Your task to perform on an android device: Open Youtube and go to "Your channel" Image 0: 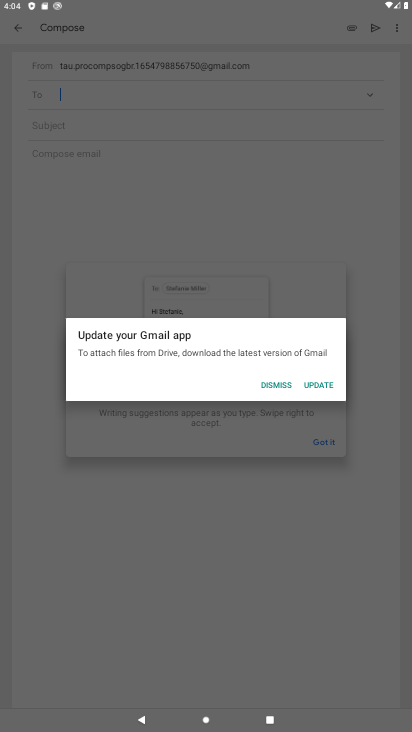
Step 0: press home button
Your task to perform on an android device: Open Youtube and go to "Your channel" Image 1: 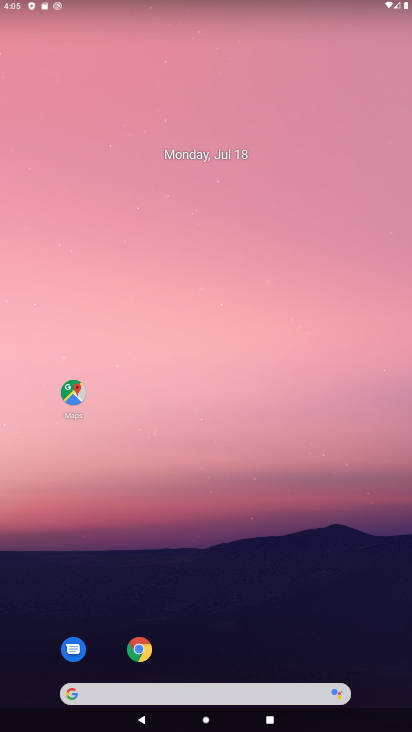
Step 1: click (246, 108)
Your task to perform on an android device: Open Youtube and go to "Your channel" Image 2: 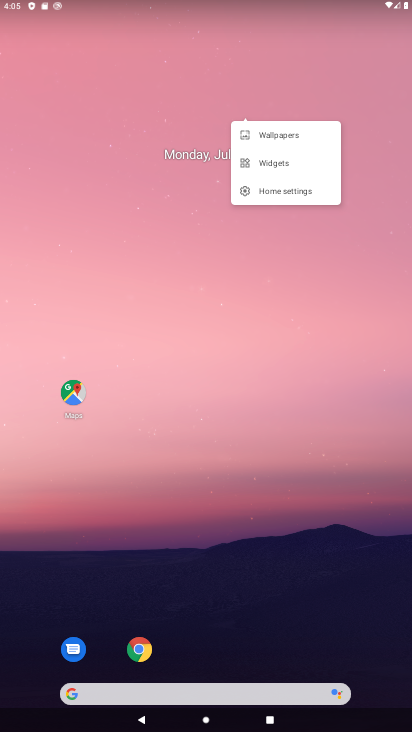
Step 2: drag from (205, 656) to (161, 211)
Your task to perform on an android device: Open Youtube and go to "Your channel" Image 3: 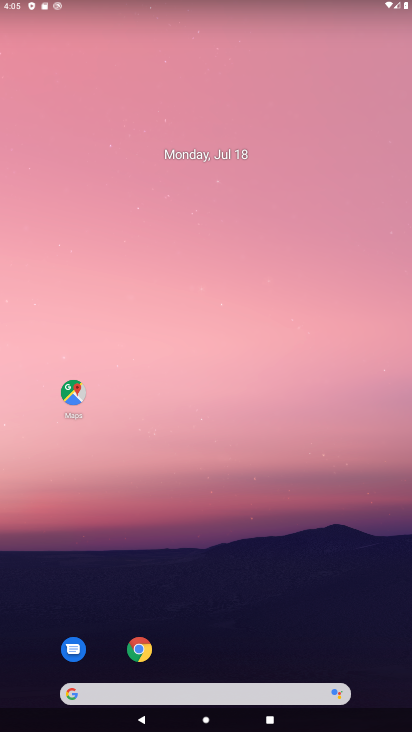
Step 3: drag from (198, 625) to (286, 19)
Your task to perform on an android device: Open Youtube and go to "Your channel" Image 4: 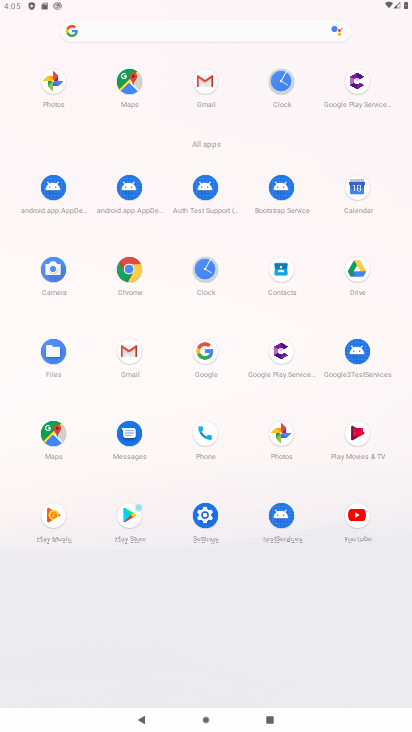
Step 4: click (346, 526)
Your task to perform on an android device: Open Youtube and go to "Your channel" Image 5: 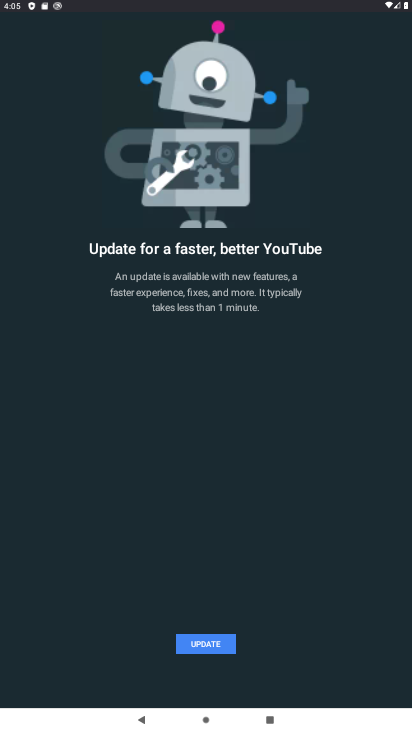
Step 5: click (205, 629)
Your task to perform on an android device: Open Youtube and go to "Your channel" Image 6: 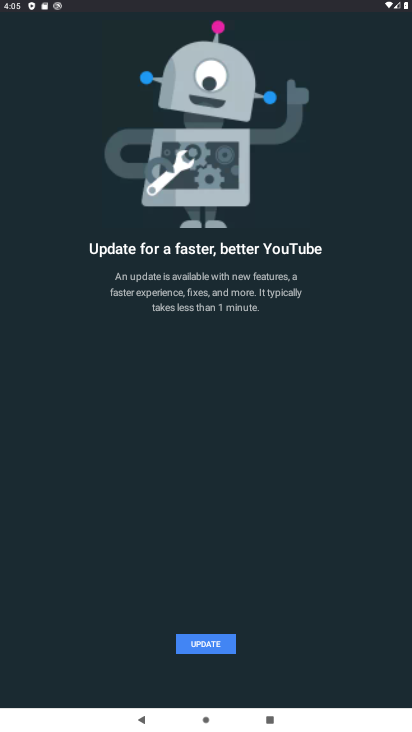
Step 6: click (206, 650)
Your task to perform on an android device: Open Youtube and go to "Your channel" Image 7: 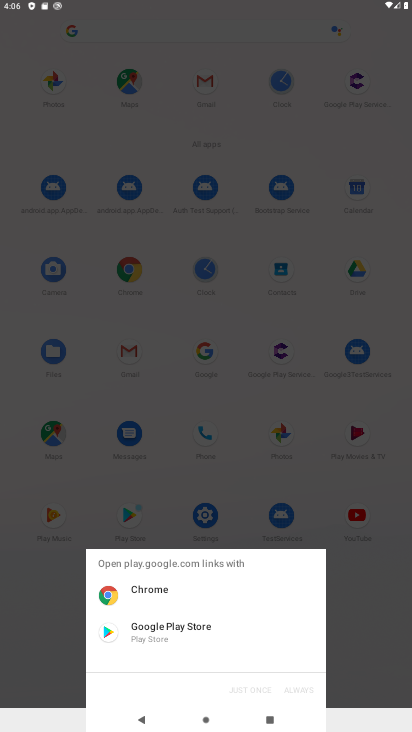
Step 7: click (182, 649)
Your task to perform on an android device: Open Youtube and go to "Your channel" Image 8: 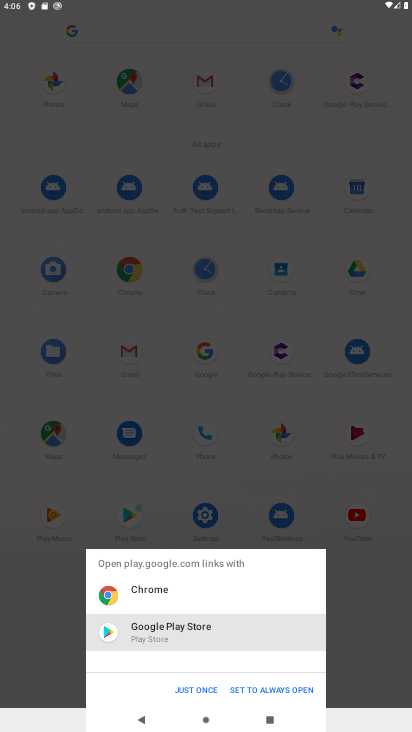
Step 8: click (185, 687)
Your task to perform on an android device: Open Youtube and go to "Your channel" Image 9: 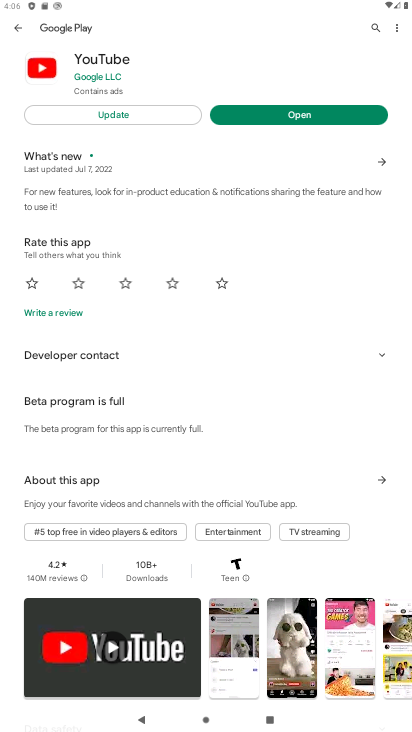
Step 9: click (165, 125)
Your task to perform on an android device: Open Youtube and go to "Your channel" Image 10: 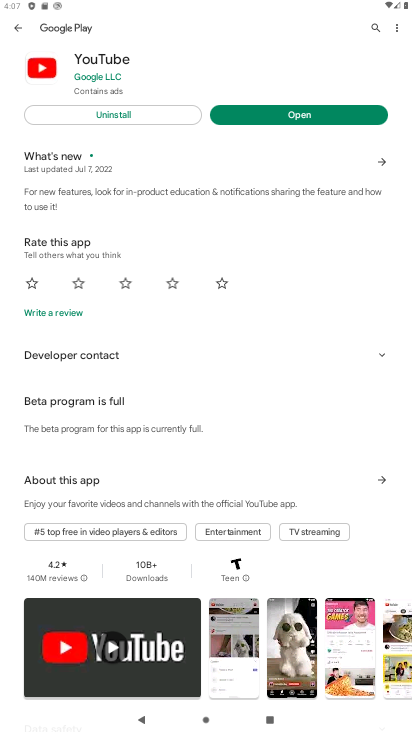
Step 10: click (332, 119)
Your task to perform on an android device: Open Youtube and go to "Your channel" Image 11: 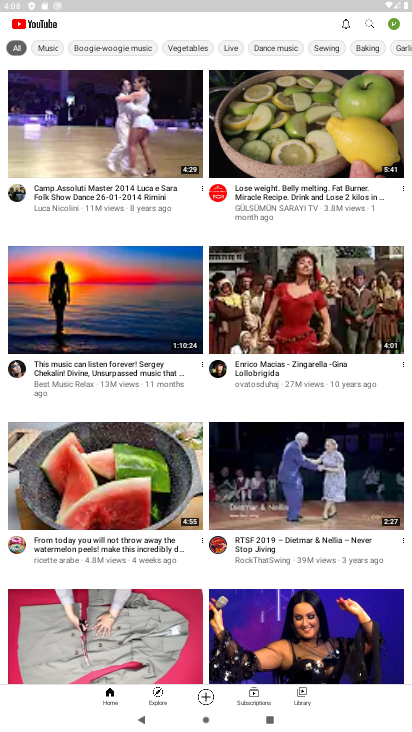
Step 11: click (368, 26)
Your task to perform on an android device: Open Youtube and go to "Your channel" Image 12: 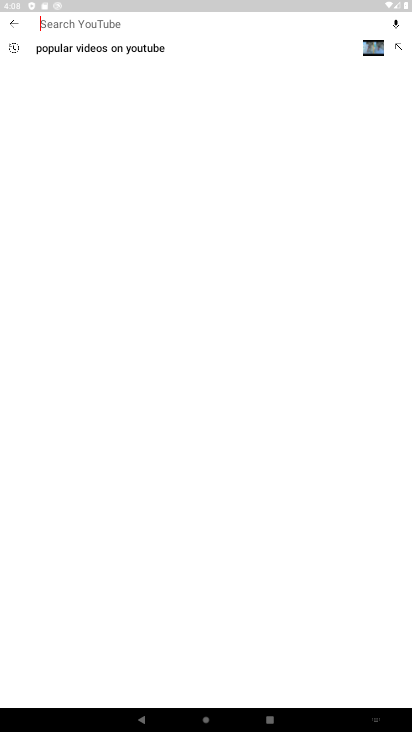
Step 12: type "your channel"
Your task to perform on an android device: Open Youtube and go to "Your channel" Image 13: 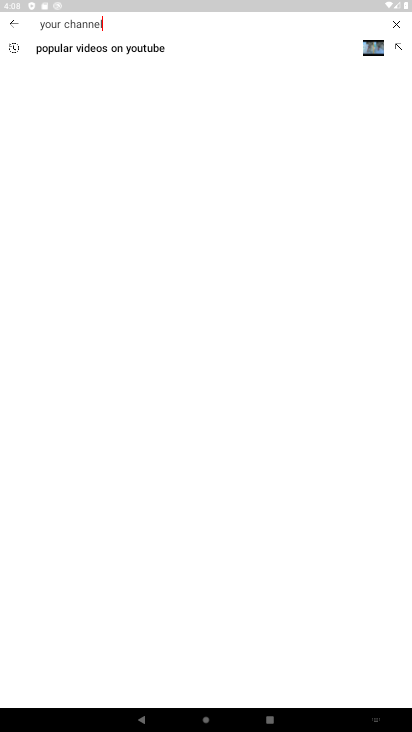
Step 13: type ""
Your task to perform on an android device: Open Youtube and go to "Your channel" Image 14: 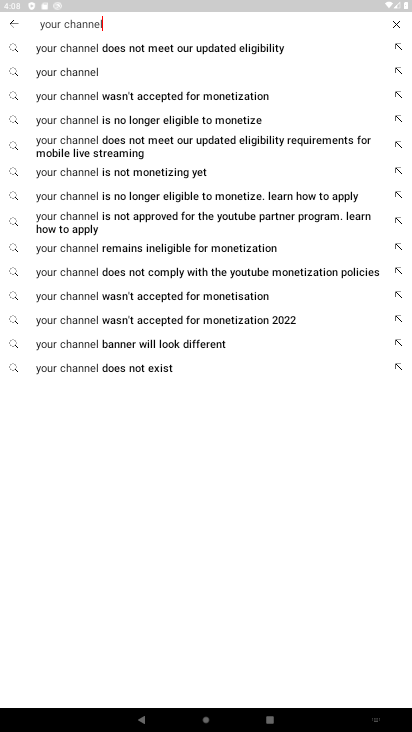
Step 14: click (124, 65)
Your task to perform on an android device: Open Youtube and go to "Your channel" Image 15: 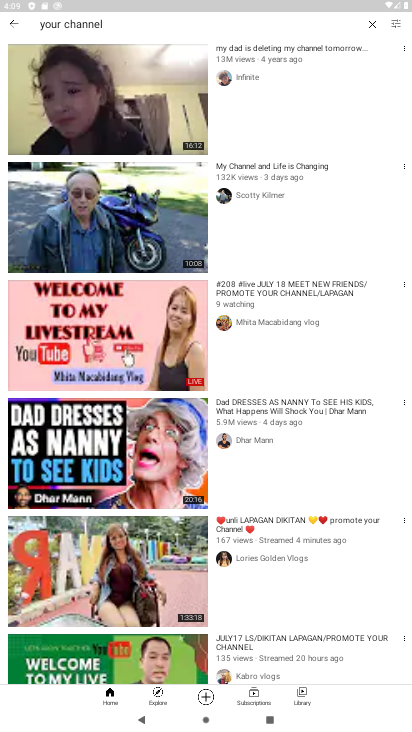
Step 15: task complete